Your task to perform on an android device: clear all cookies in the chrome app Image 0: 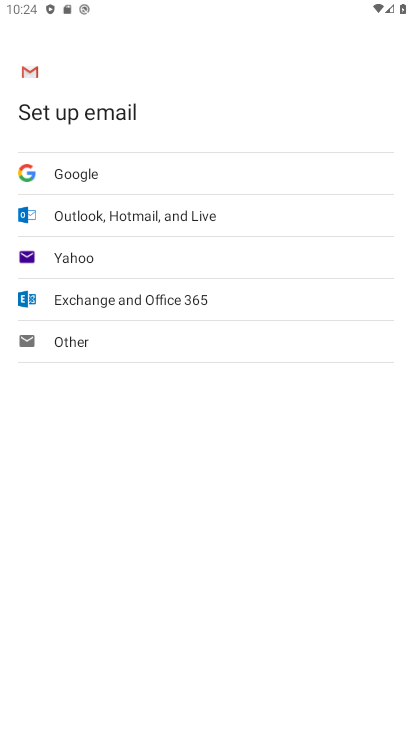
Step 0: press home button
Your task to perform on an android device: clear all cookies in the chrome app Image 1: 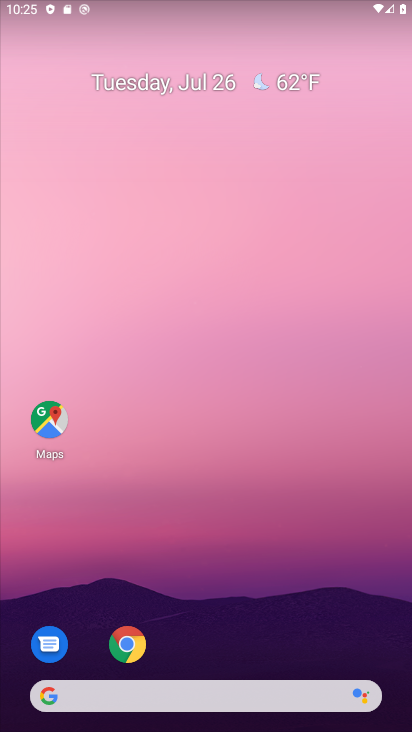
Step 1: click (213, 633)
Your task to perform on an android device: clear all cookies in the chrome app Image 2: 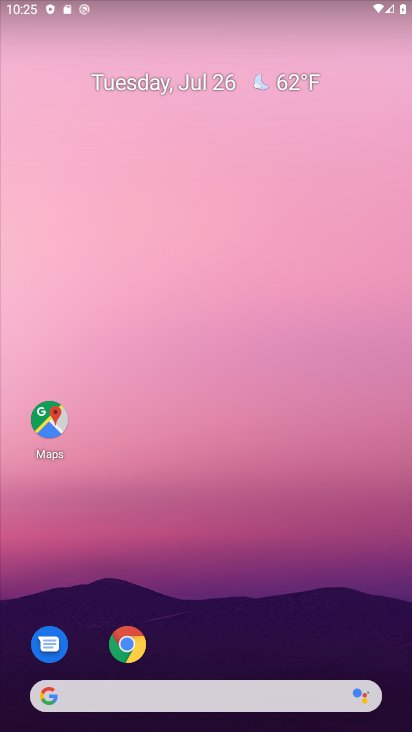
Step 2: click (135, 650)
Your task to perform on an android device: clear all cookies in the chrome app Image 3: 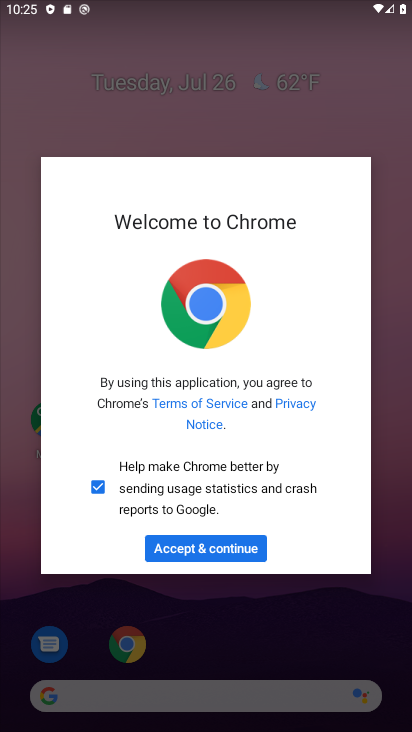
Step 3: click (230, 545)
Your task to perform on an android device: clear all cookies in the chrome app Image 4: 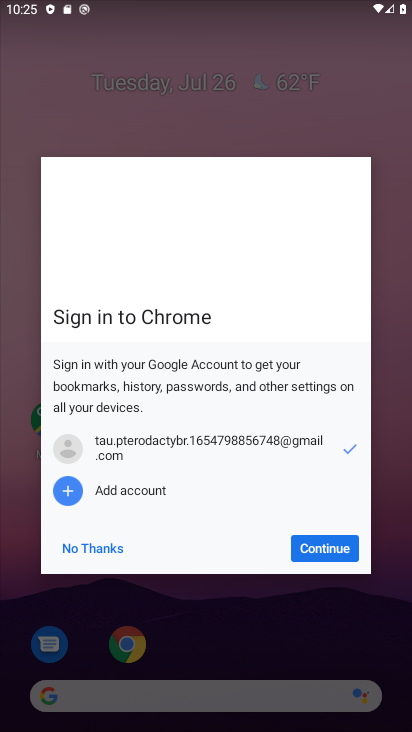
Step 4: click (315, 548)
Your task to perform on an android device: clear all cookies in the chrome app Image 5: 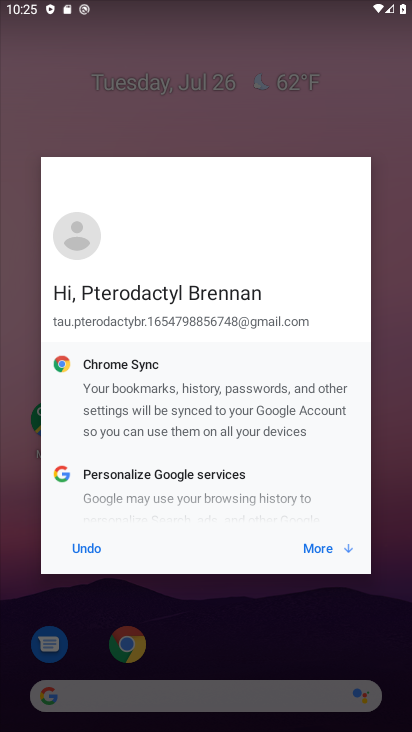
Step 5: click (315, 548)
Your task to perform on an android device: clear all cookies in the chrome app Image 6: 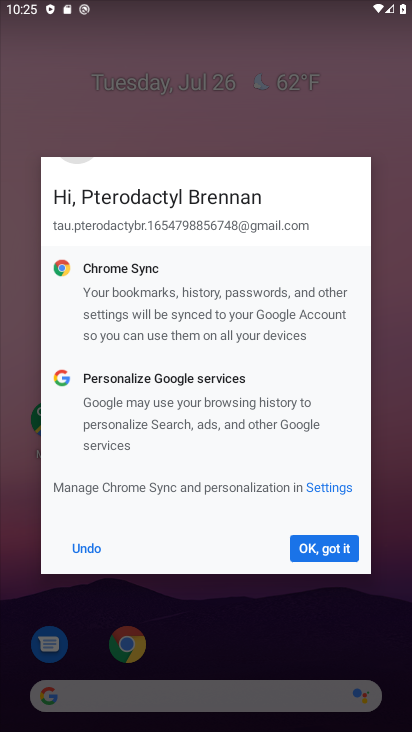
Step 6: click (315, 548)
Your task to perform on an android device: clear all cookies in the chrome app Image 7: 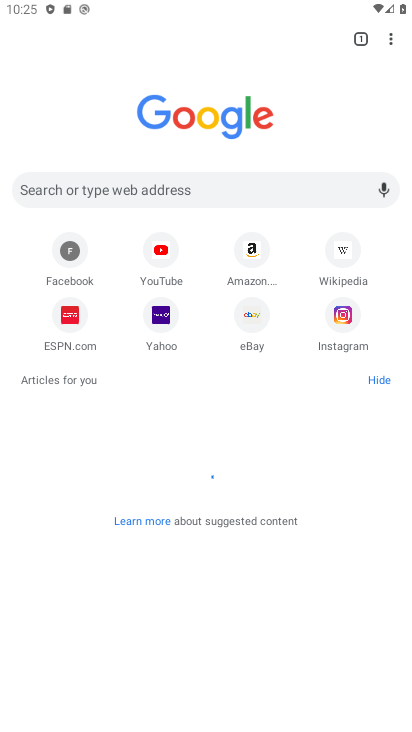
Step 7: click (388, 43)
Your task to perform on an android device: clear all cookies in the chrome app Image 8: 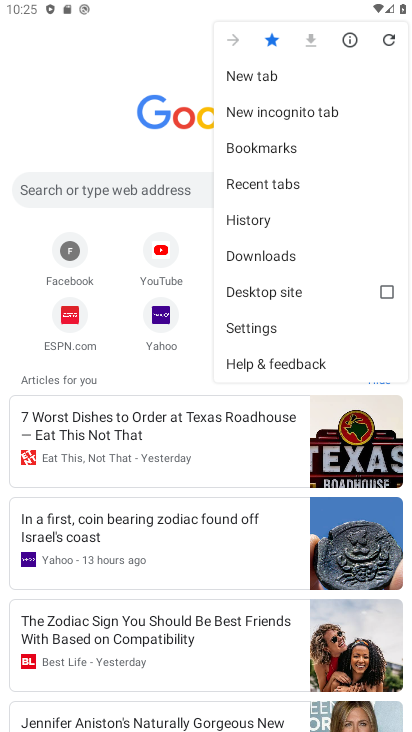
Step 8: click (279, 334)
Your task to perform on an android device: clear all cookies in the chrome app Image 9: 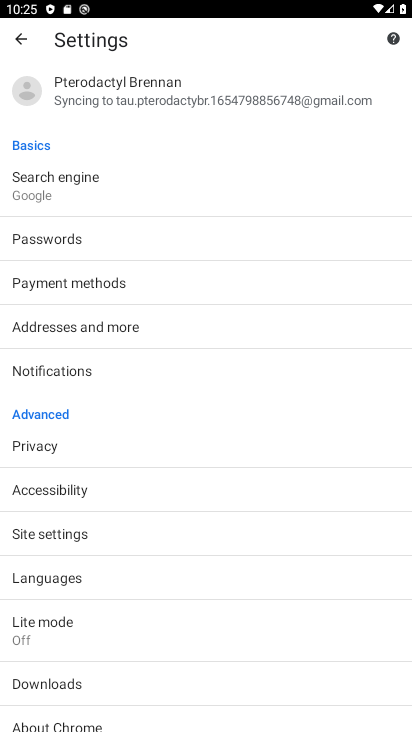
Step 9: click (85, 536)
Your task to perform on an android device: clear all cookies in the chrome app Image 10: 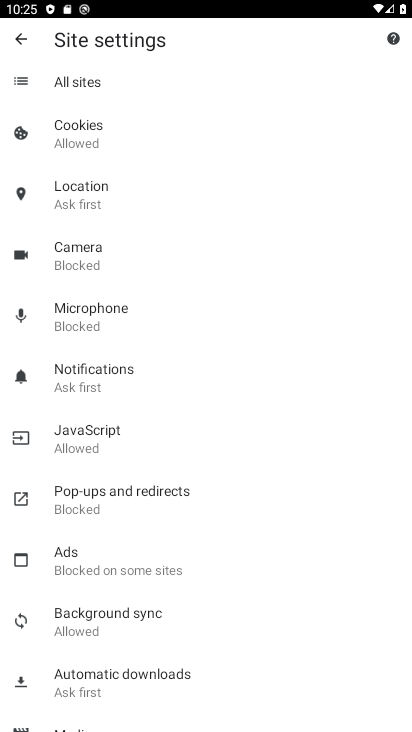
Step 10: task complete